Your task to perform on an android device: change notification settings in the gmail app Image 0: 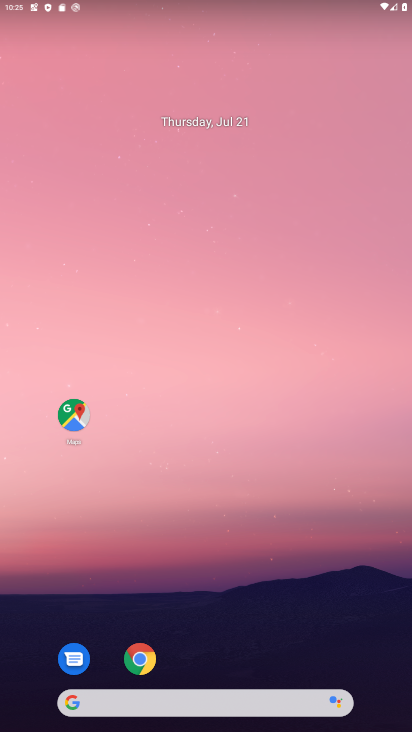
Step 0: drag from (320, 632) to (270, 127)
Your task to perform on an android device: change notification settings in the gmail app Image 1: 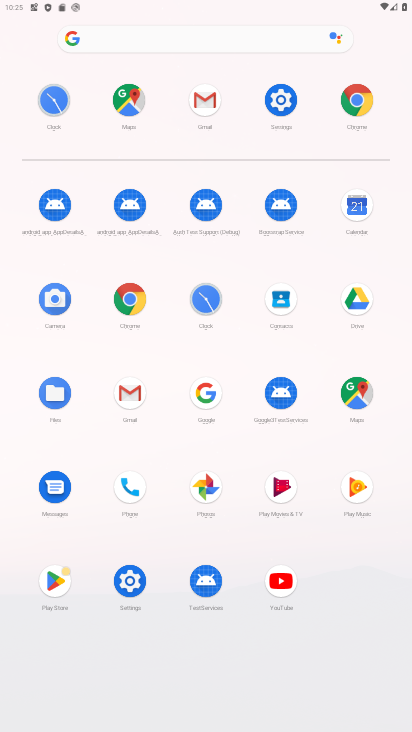
Step 1: click (127, 396)
Your task to perform on an android device: change notification settings in the gmail app Image 2: 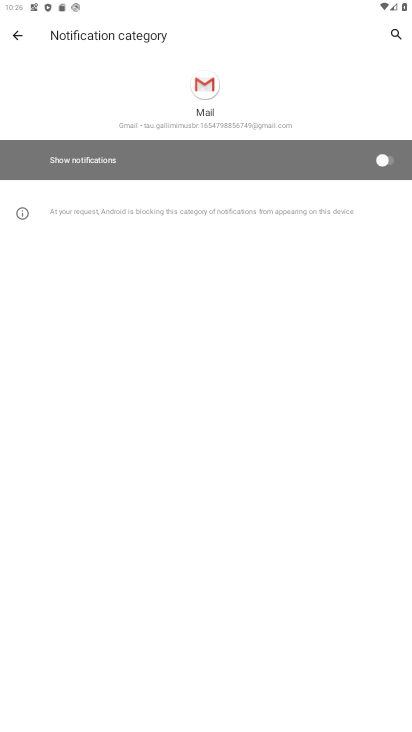
Step 2: click (377, 159)
Your task to perform on an android device: change notification settings in the gmail app Image 3: 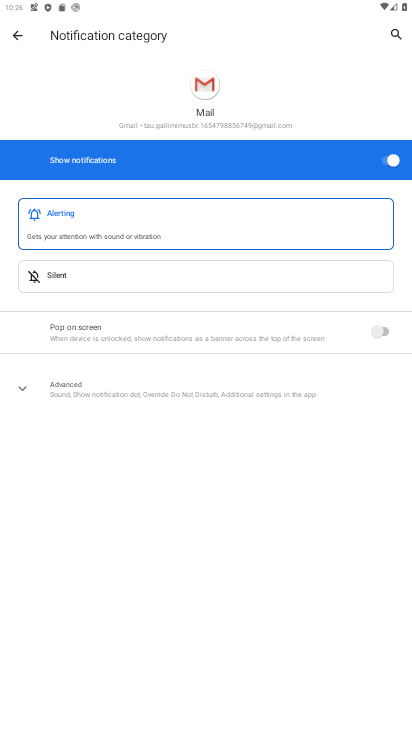
Step 3: task complete